Your task to perform on an android device: check android version Image 0: 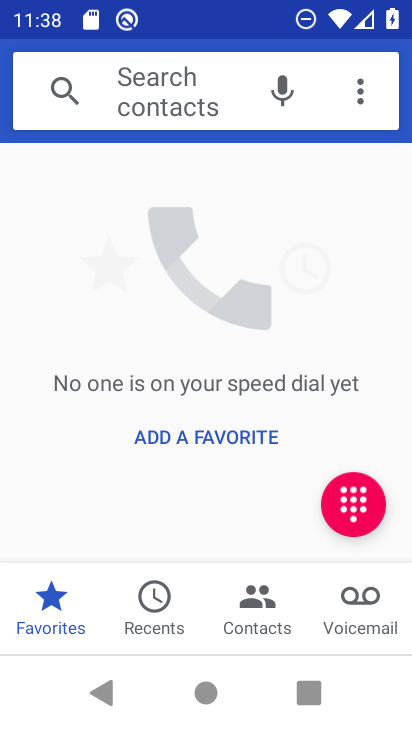
Step 0: press home button
Your task to perform on an android device: check android version Image 1: 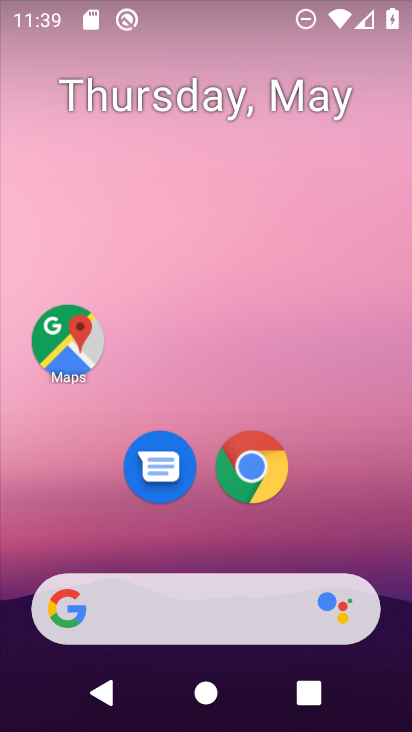
Step 1: drag from (203, 562) to (254, 140)
Your task to perform on an android device: check android version Image 2: 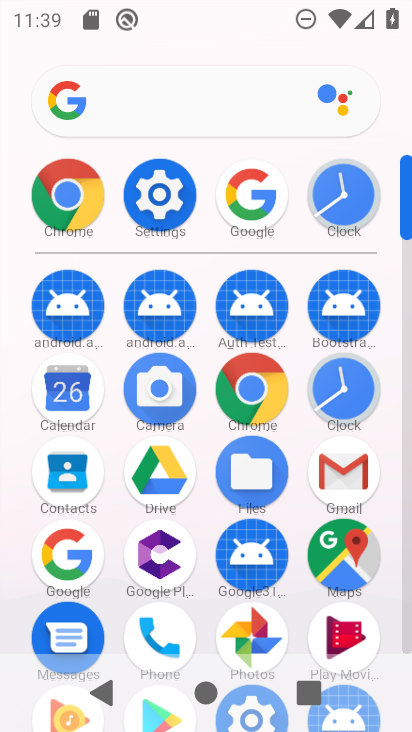
Step 2: drag from (214, 268) to (199, 88)
Your task to perform on an android device: check android version Image 3: 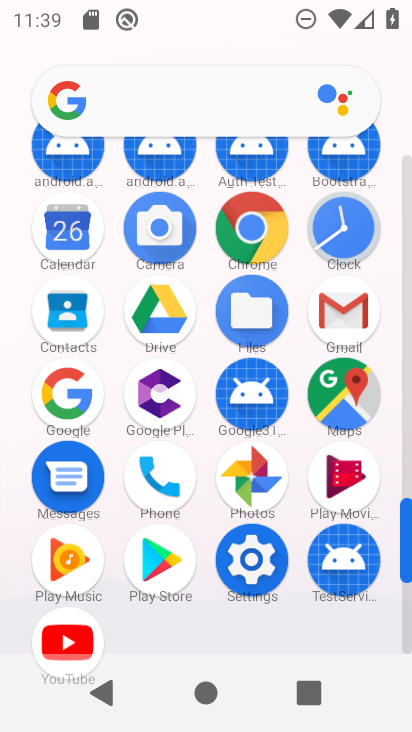
Step 3: click (92, 404)
Your task to perform on an android device: check android version Image 4: 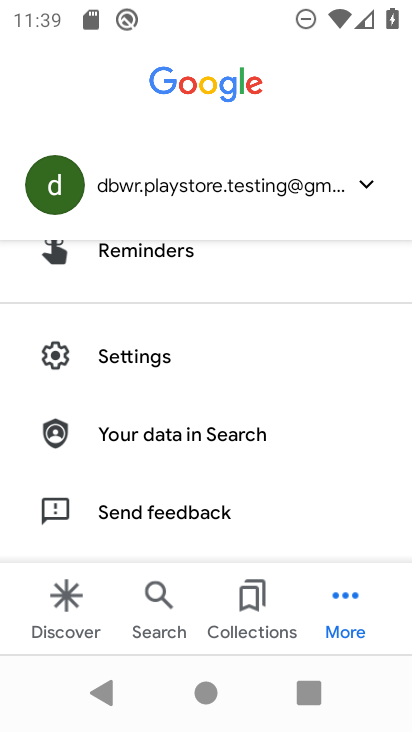
Step 4: click (195, 374)
Your task to perform on an android device: check android version Image 5: 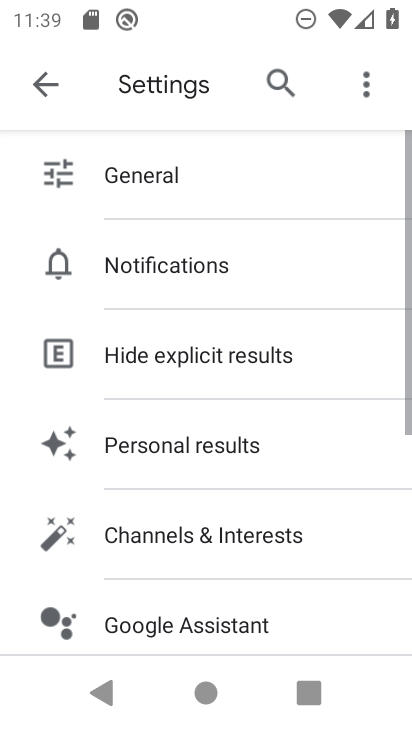
Step 5: drag from (167, 482) to (164, 2)
Your task to perform on an android device: check android version Image 6: 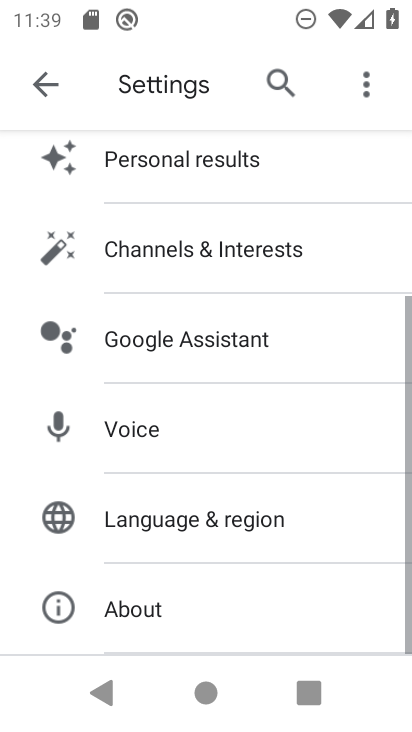
Step 6: click (209, 607)
Your task to perform on an android device: check android version Image 7: 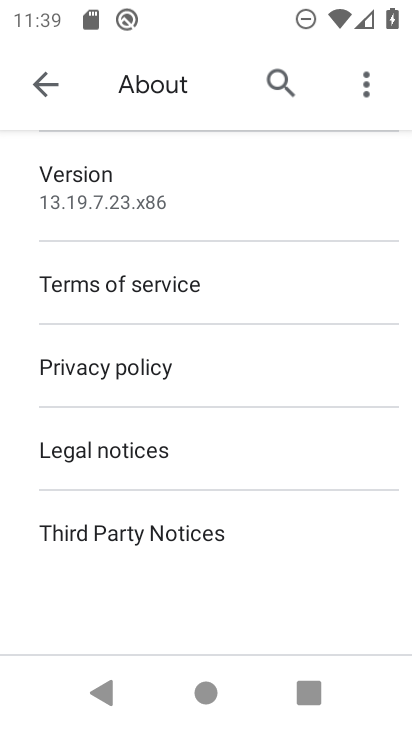
Step 7: task complete